Your task to perform on an android device: set an alarm Image 0: 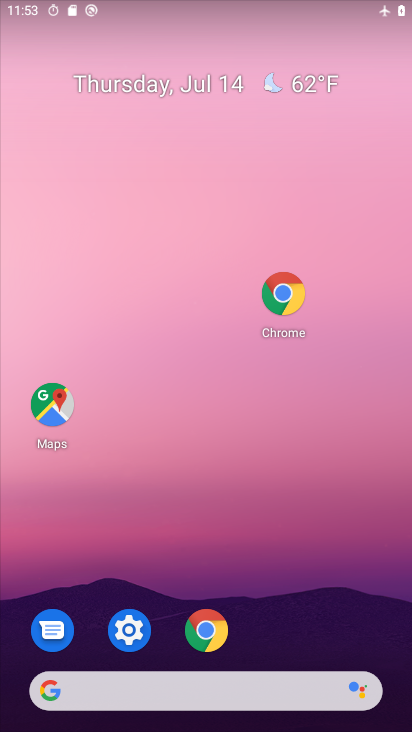
Step 0: drag from (296, 669) to (165, 138)
Your task to perform on an android device: set an alarm Image 1: 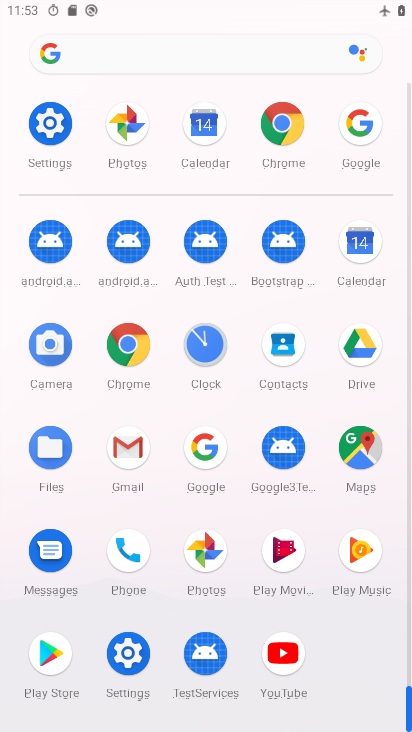
Step 1: click (197, 375)
Your task to perform on an android device: set an alarm Image 2: 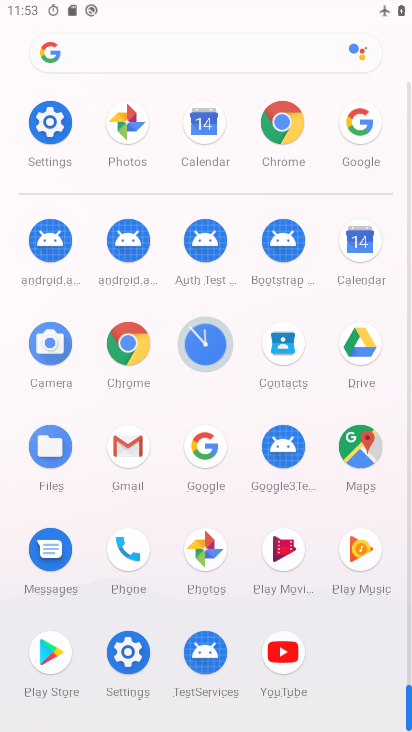
Step 2: click (198, 374)
Your task to perform on an android device: set an alarm Image 3: 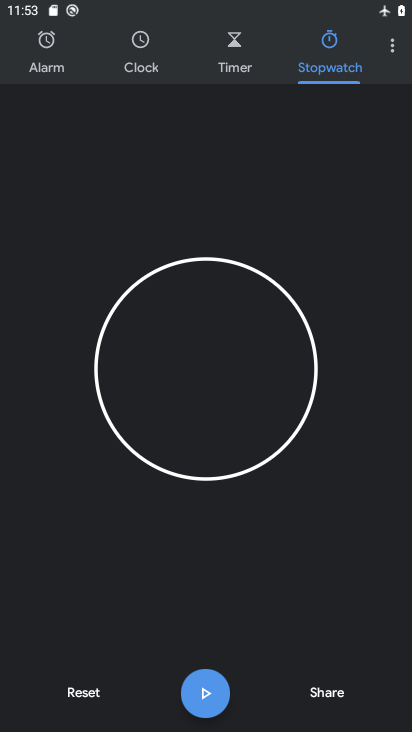
Step 3: click (57, 58)
Your task to perform on an android device: set an alarm Image 4: 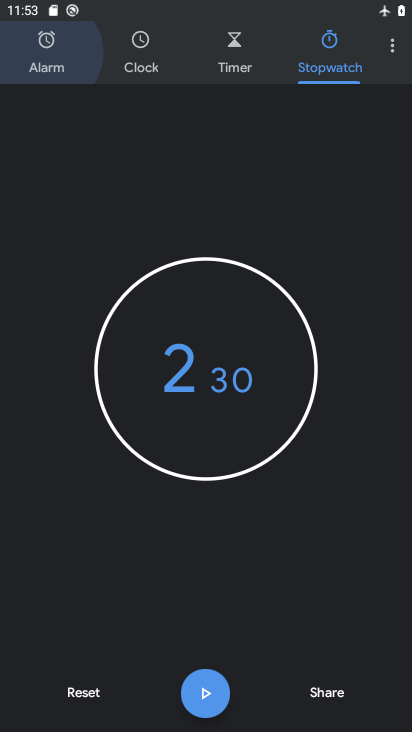
Step 4: click (47, 55)
Your task to perform on an android device: set an alarm Image 5: 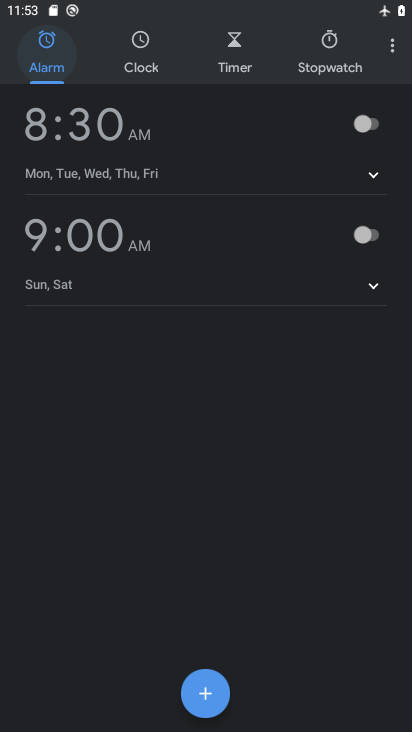
Step 5: click (47, 55)
Your task to perform on an android device: set an alarm Image 6: 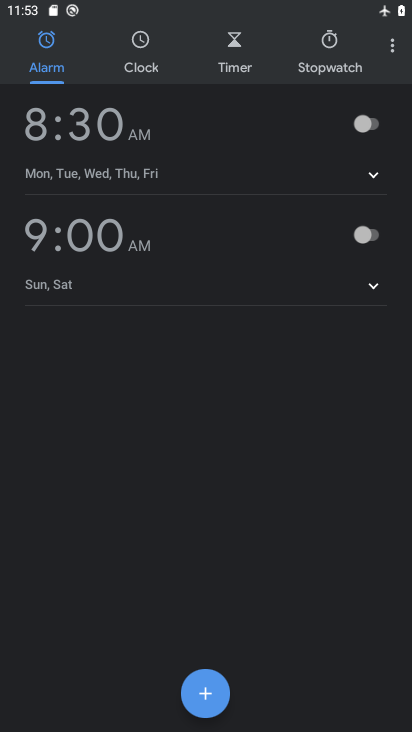
Step 6: click (365, 123)
Your task to perform on an android device: set an alarm Image 7: 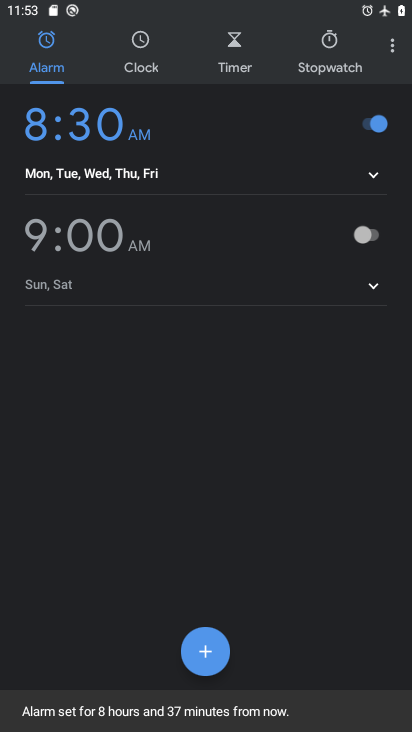
Step 7: click (360, 240)
Your task to perform on an android device: set an alarm Image 8: 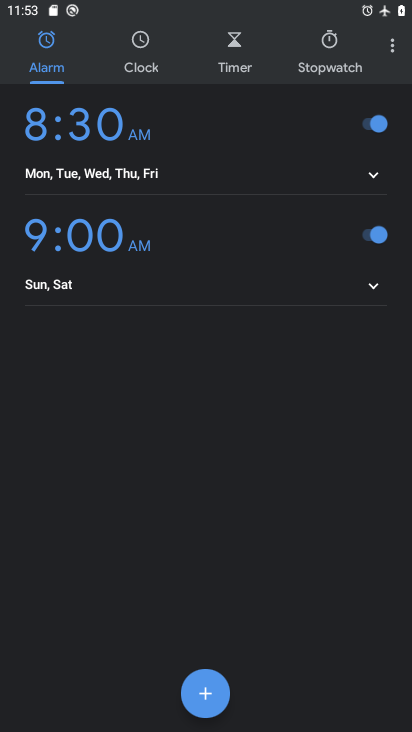
Step 8: task complete